Your task to perform on an android device: change alarm snooze length Image 0: 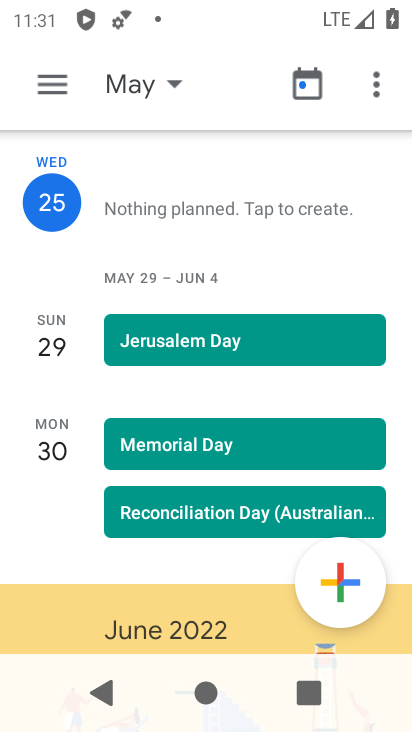
Step 0: press home button
Your task to perform on an android device: change alarm snooze length Image 1: 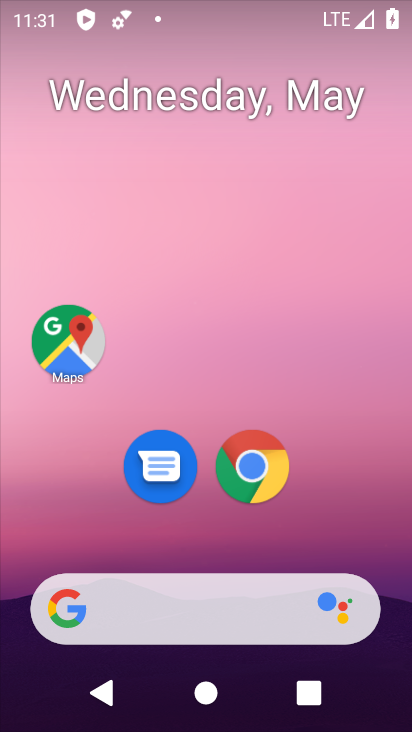
Step 1: drag from (216, 499) to (251, 136)
Your task to perform on an android device: change alarm snooze length Image 2: 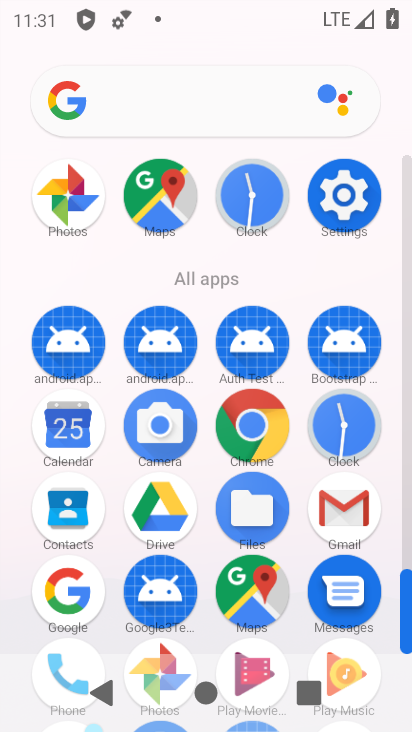
Step 2: click (344, 429)
Your task to perform on an android device: change alarm snooze length Image 3: 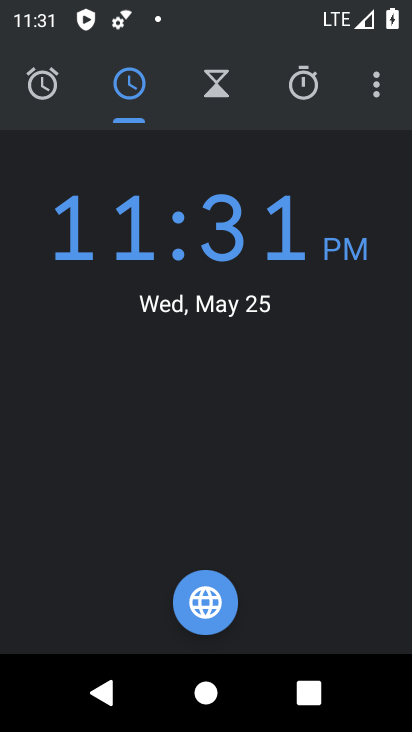
Step 3: click (379, 85)
Your task to perform on an android device: change alarm snooze length Image 4: 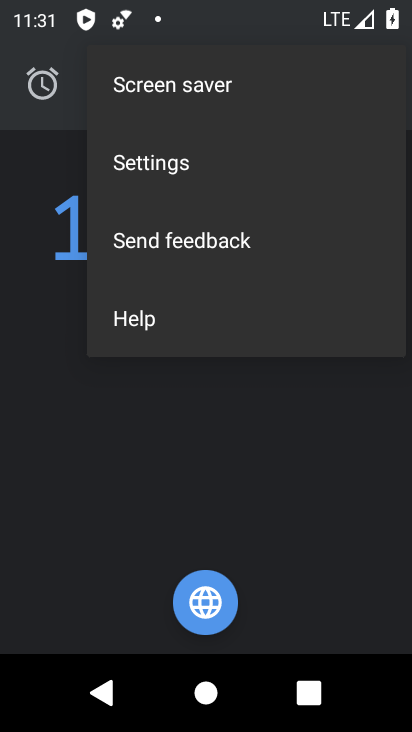
Step 4: click (163, 160)
Your task to perform on an android device: change alarm snooze length Image 5: 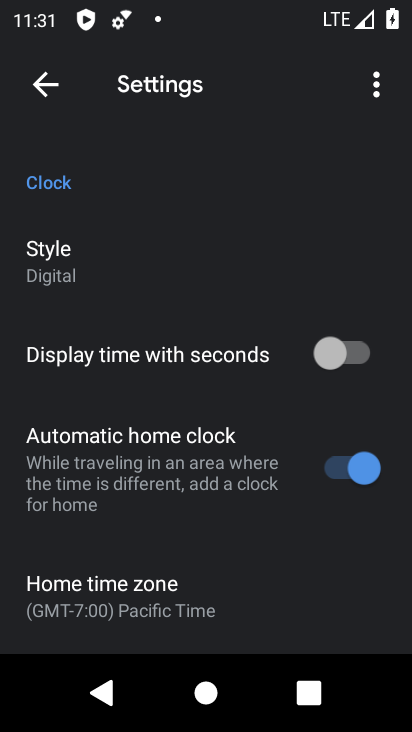
Step 5: drag from (136, 569) to (168, 268)
Your task to perform on an android device: change alarm snooze length Image 6: 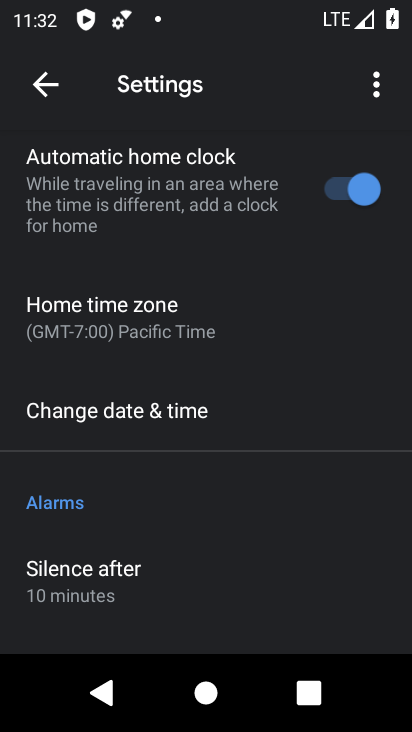
Step 6: drag from (121, 528) to (154, 360)
Your task to perform on an android device: change alarm snooze length Image 7: 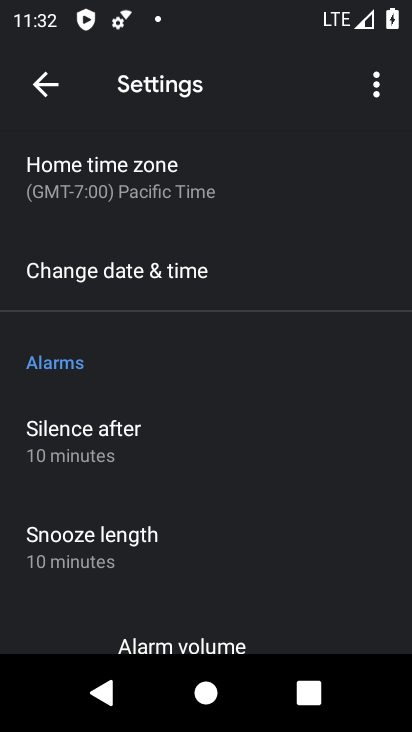
Step 7: click (107, 564)
Your task to perform on an android device: change alarm snooze length Image 8: 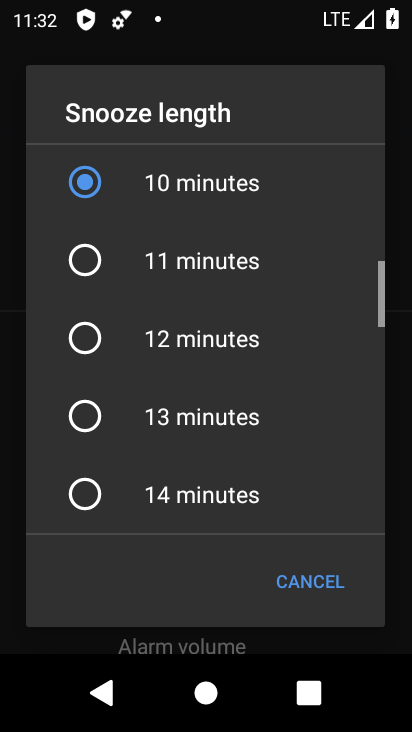
Step 8: click (100, 419)
Your task to perform on an android device: change alarm snooze length Image 9: 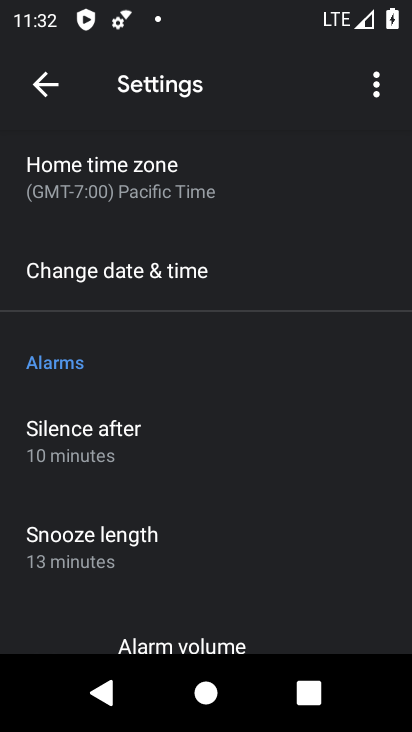
Step 9: task complete